Your task to perform on an android device: turn on data saver in the chrome app Image 0: 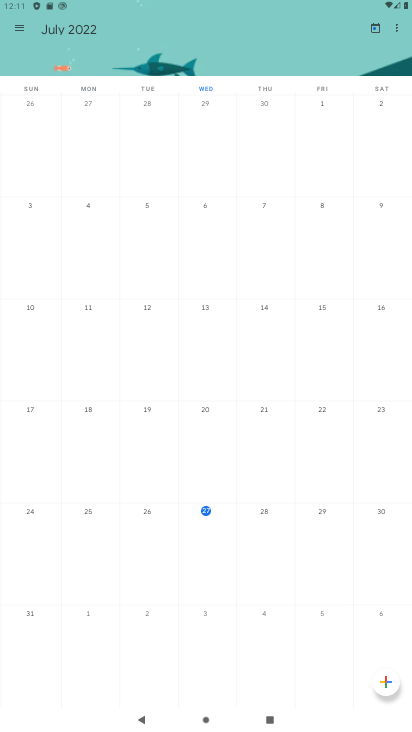
Step 0: press home button
Your task to perform on an android device: turn on data saver in the chrome app Image 1: 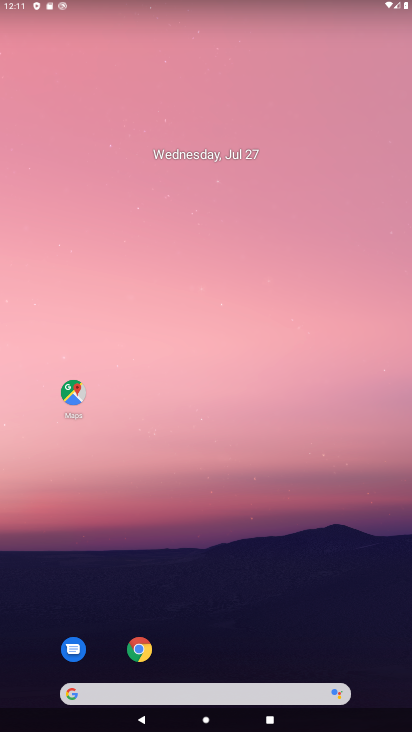
Step 1: click (138, 644)
Your task to perform on an android device: turn on data saver in the chrome app Image 2: 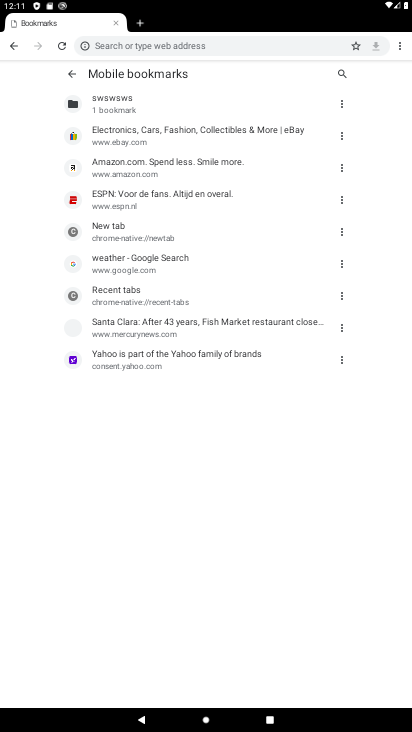
Step 2: click (404, 46)
Your task to perform on an android device: turn on data saver in the chrome app Image 3: 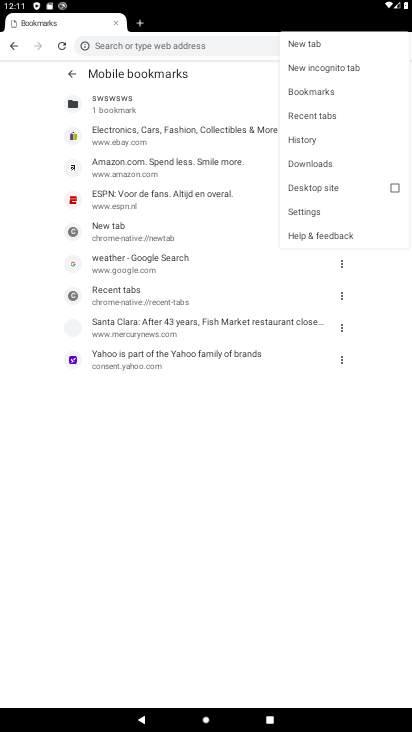
Step 3: click (312, 214)
Your task to perform on an android device: turn on data saver in the chrome app Image 4: 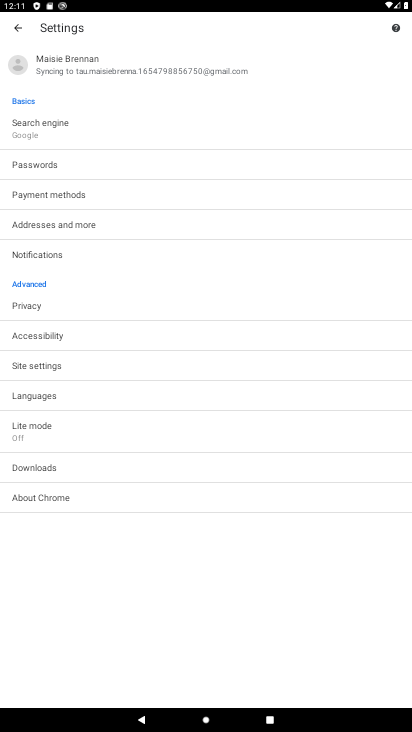
Step 4: click (30, 423)
Your task to perform on an android device: turn on data saver in the chrome app Image 5: 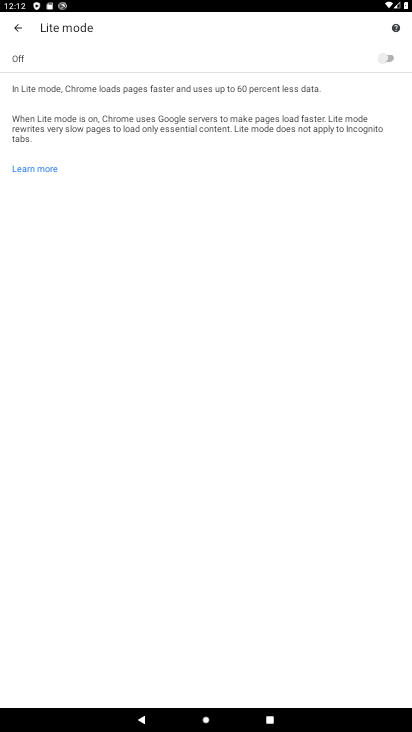
Step 5: click (386, 56)
Your task to perform on an android device: turn on data saver in the chrome app Image 6: 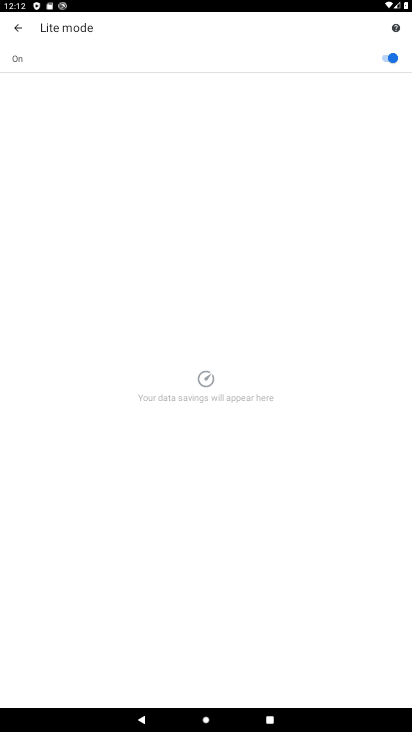
Step 6: task complete